Your task to perform on an android device: Search for a 3D printer on aliexpress. Image 0: 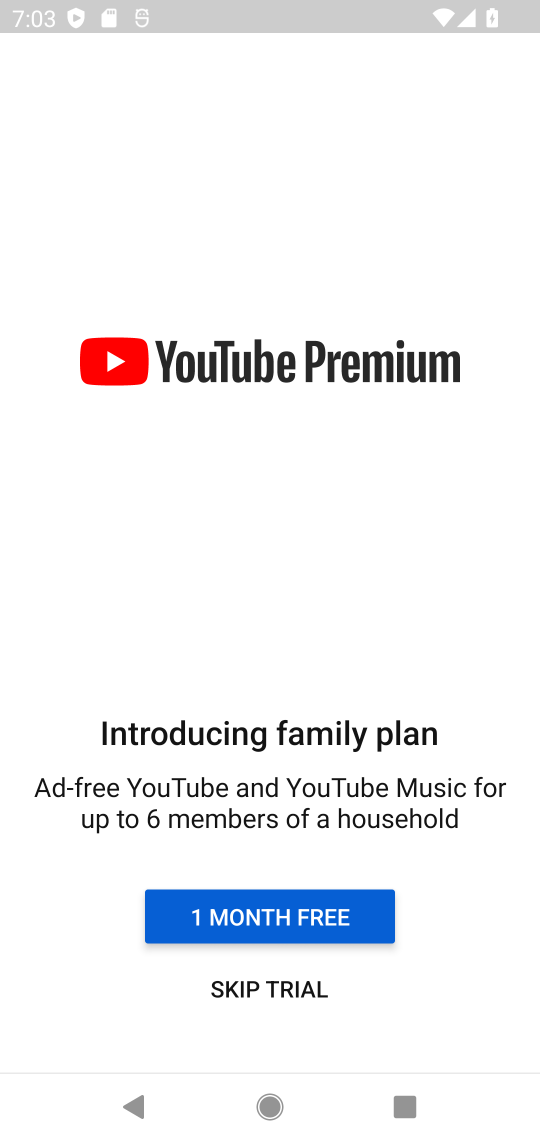
Step 0: press home button
Your task to perform on an android device: Search for a 3D printer on aliexpress. Image 1: 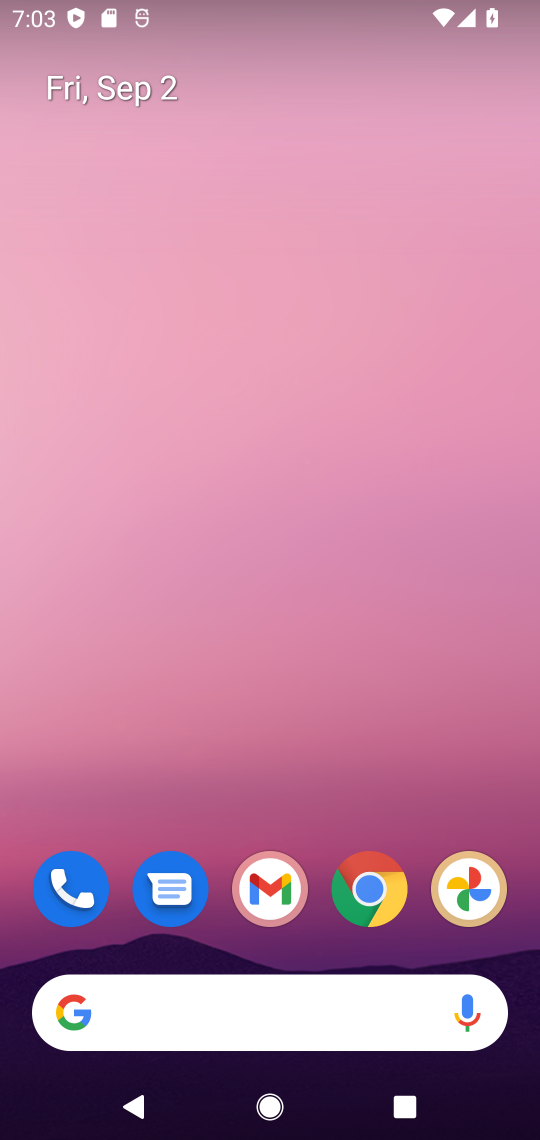
Step 1: click (318, 1031)
Your task to perform on an android device: Search for a 3D printer on aliexpress. Image 2: 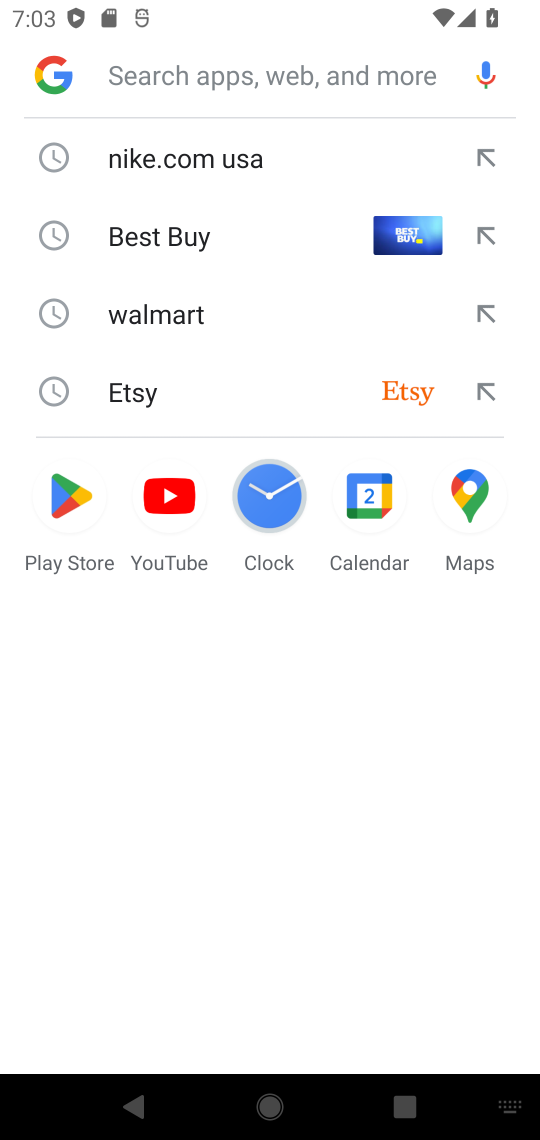
Step 2: type "aliexpress"
Your task to perform on an android device: Search for a 3D printer on aliexpress. Image 3: 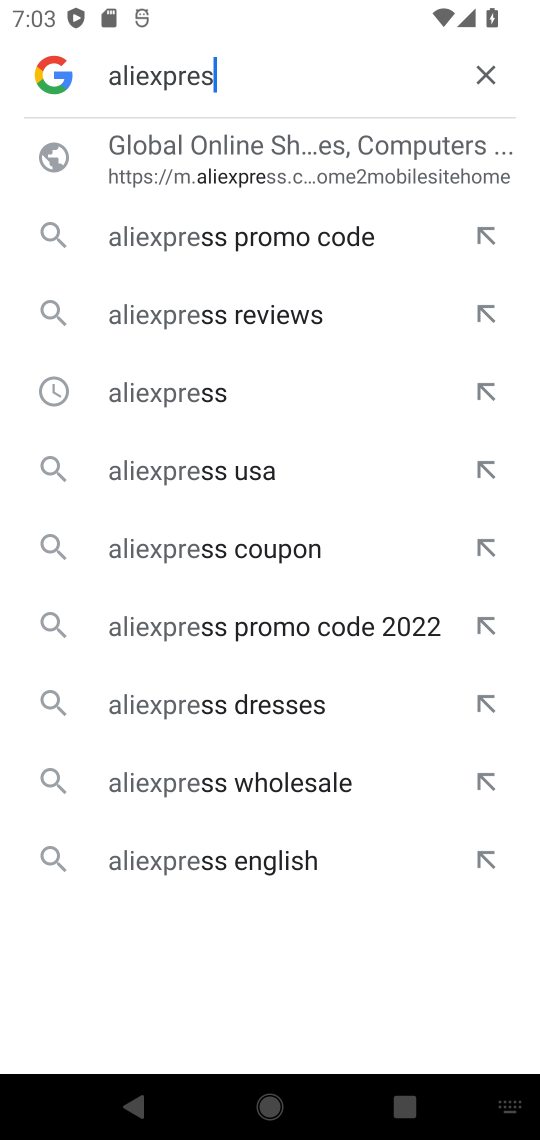
Step 3: type ""
Your task to perform on an android device: Search for a 3D printer on aliexpress. Image 4: 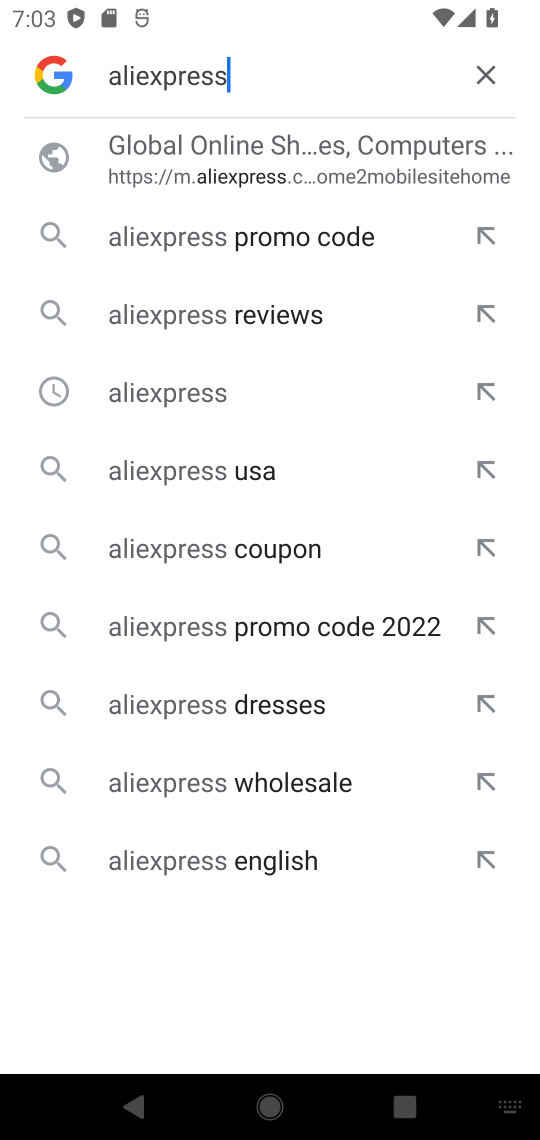
Step 4: click (217, 391)
Your task to perform on an android device: Search for a 3D printer on aliexpress. Image 5: 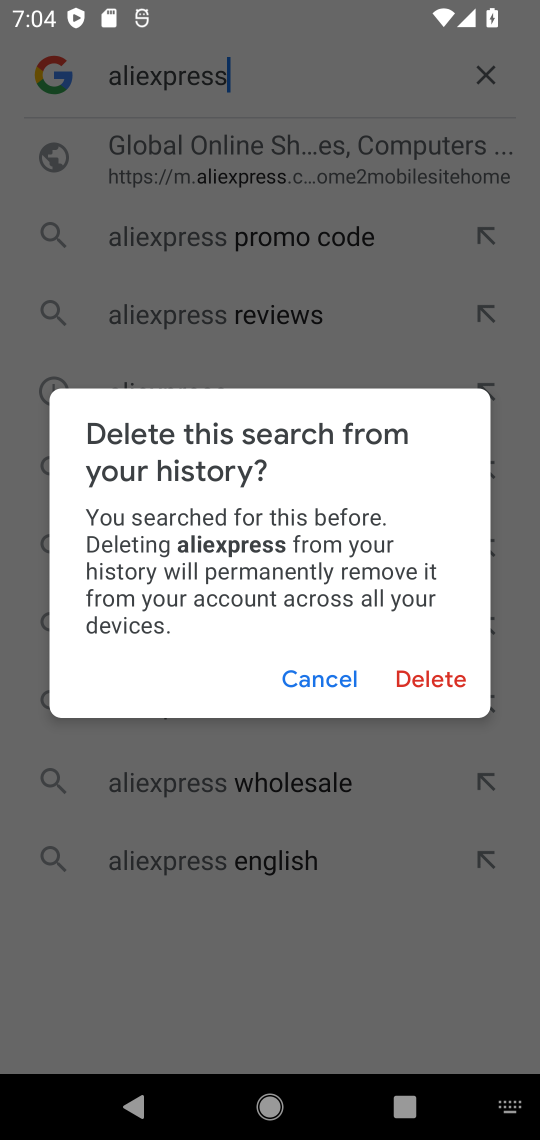
Step 5: click (333, 671)
Your task to perform on an android device: Search for a 3D printer on aliexpress. Image 6: 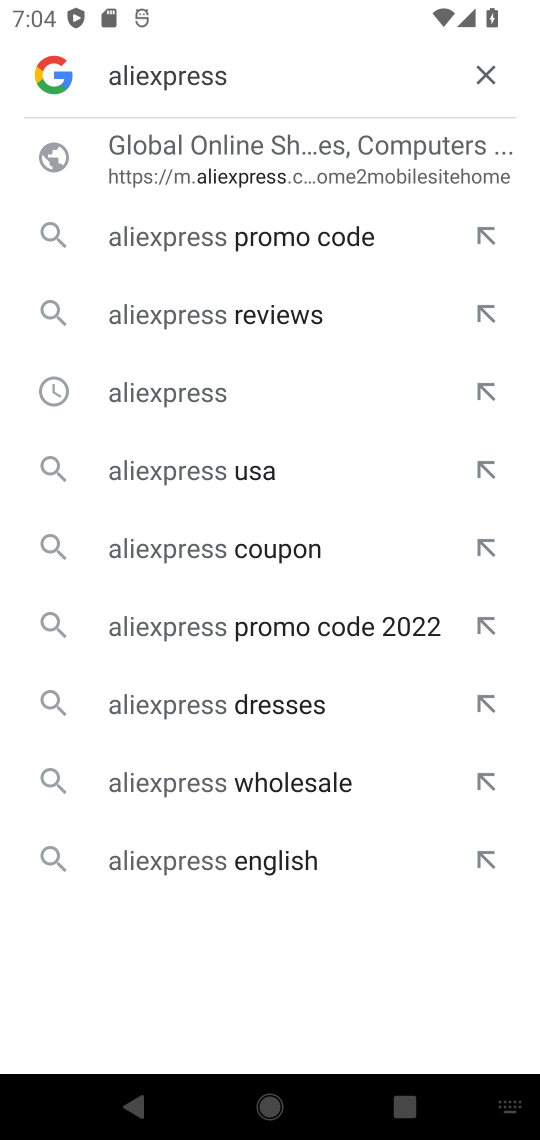
Step 6: click (219, 370)
Your task to perform on an android device: Search for a 3D printer on aliexpress. Image 7: 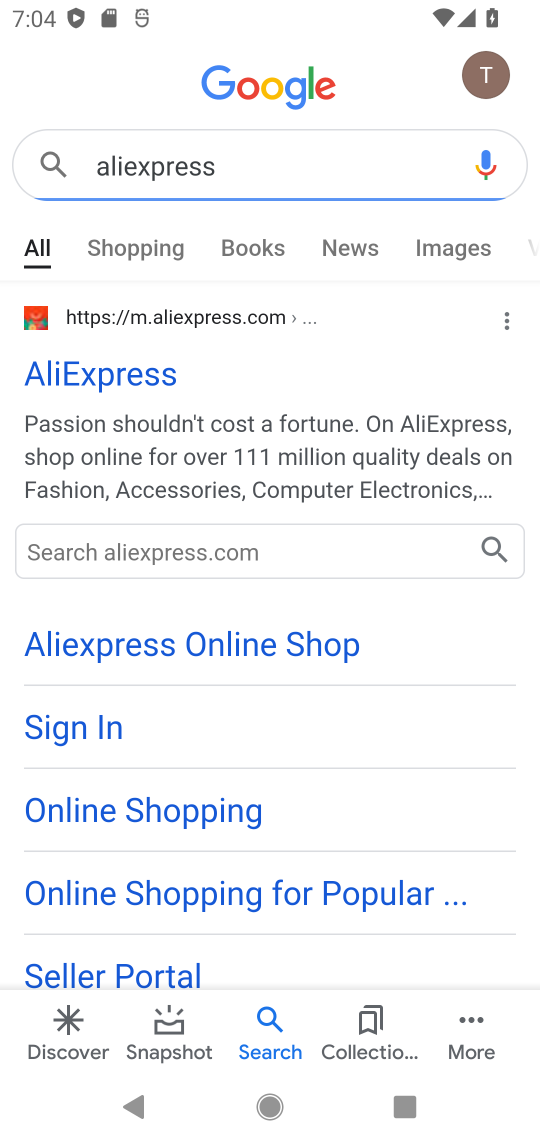
Step 7: click (150, 383)
Your task to perform on an android device: Search for a 3D printer on aliexpress. Image 8: 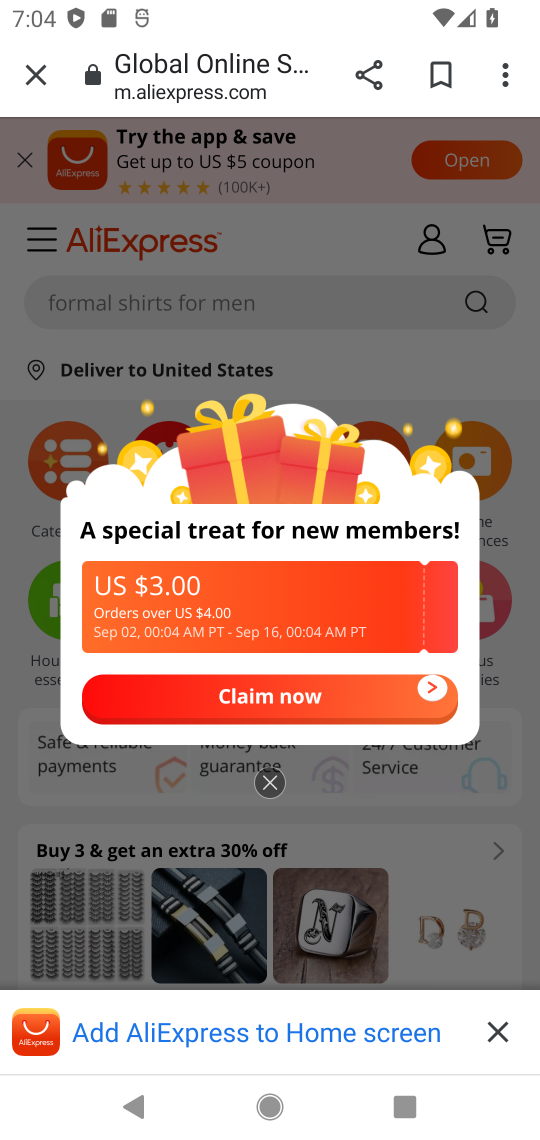
Step 8: click (270, 777)
Your task to perform on an android device: Search for a 3D printer on aliexpress. Image 9: 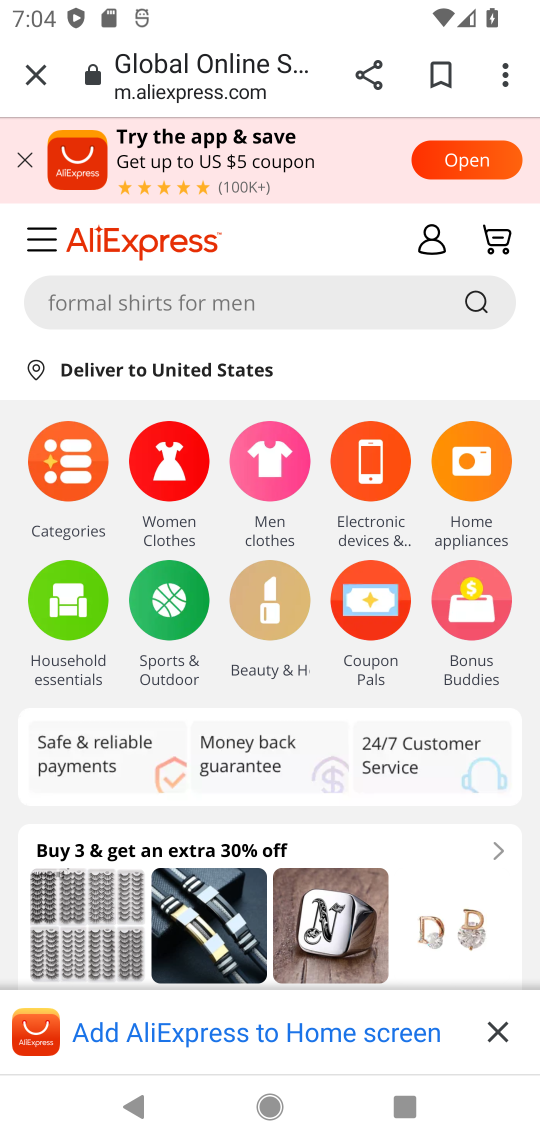
Step 9: click (181, 314)
Your task to perform on an android device: Search for a 3D printer on aliexpress. Image 10: 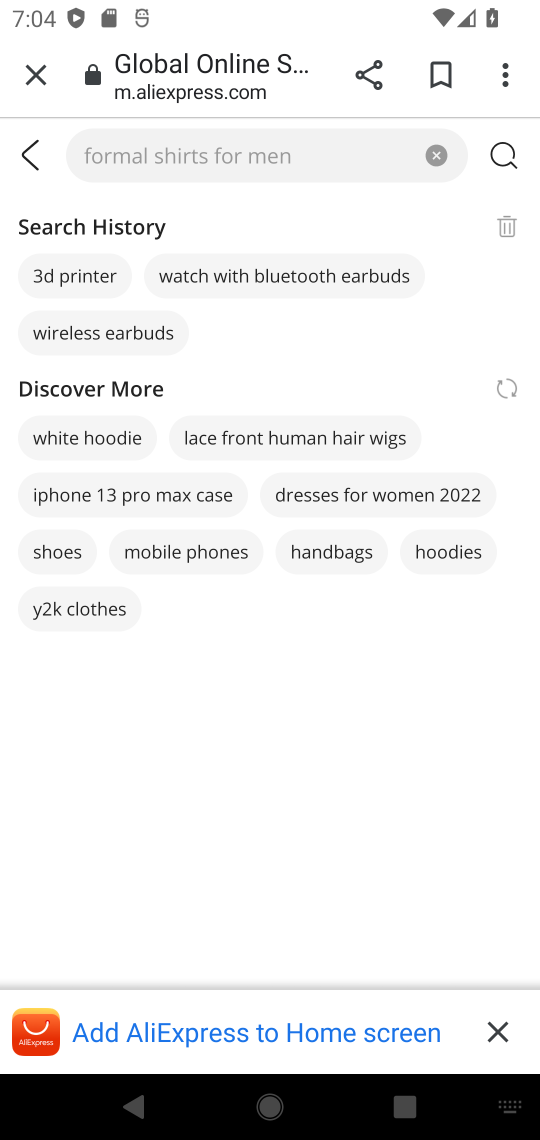
Step 10: type "3D printer"
Your task to perform on an android device: Search for a 3D printer on aliexpress. Image 11: 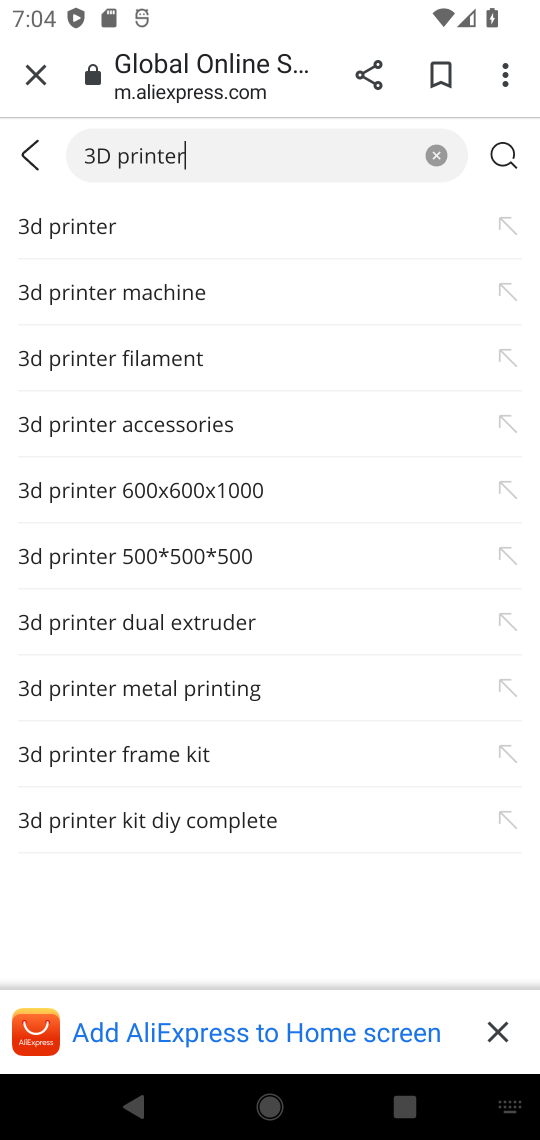
Step 11: click (223, 222)
Your task to perform on an android device: Search for a 3D printer on aliexpress. Image 12: 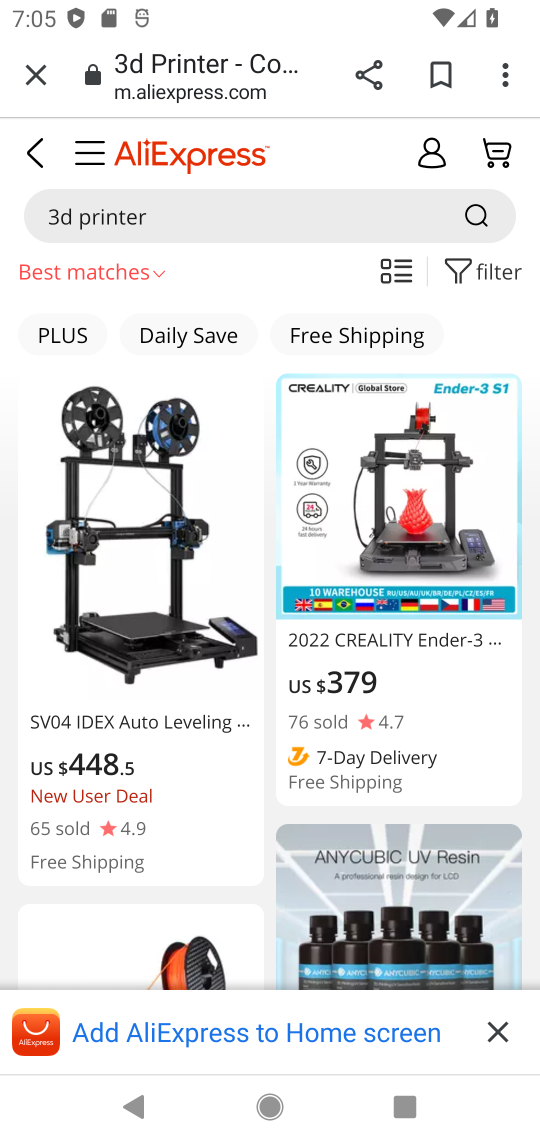
Step 12: task complete